Your task to perform on an android device: Open Google Image 0: 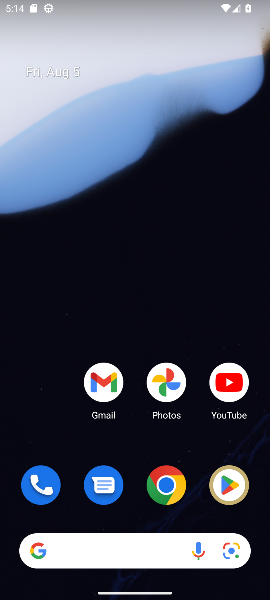
Step 0: drag from (143, 444) to (136, 148)
Your task to perform on an android device: Open Google Image 1: 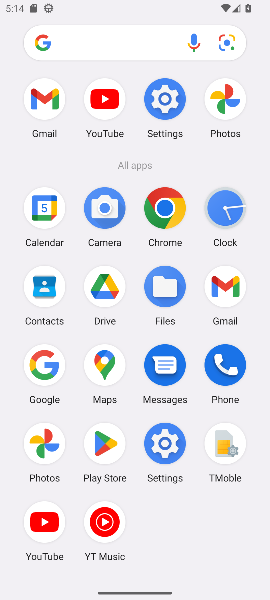
Step 1: click (31, 360)
Your task to perform on an android device: Open Google Image 2: 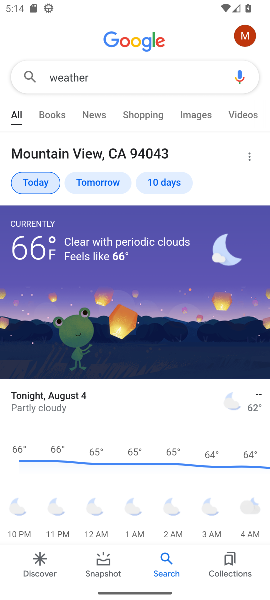
Step 2: task complete